Your task to perform on an android device: toggle notification dots Image 0: 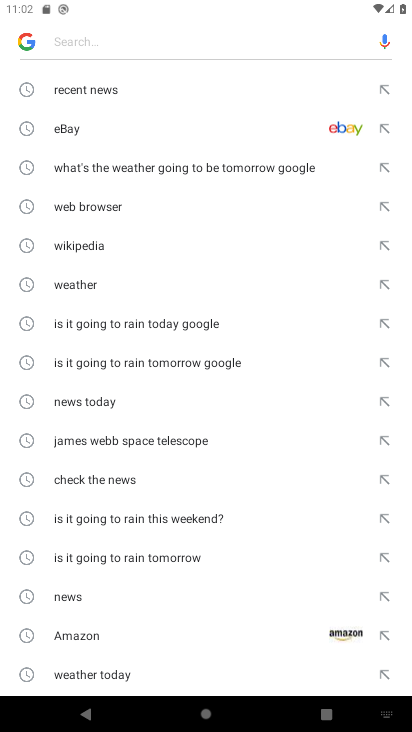
Step 0: press back button
Your task to perform on an android device: toggle notification dots Image 1: 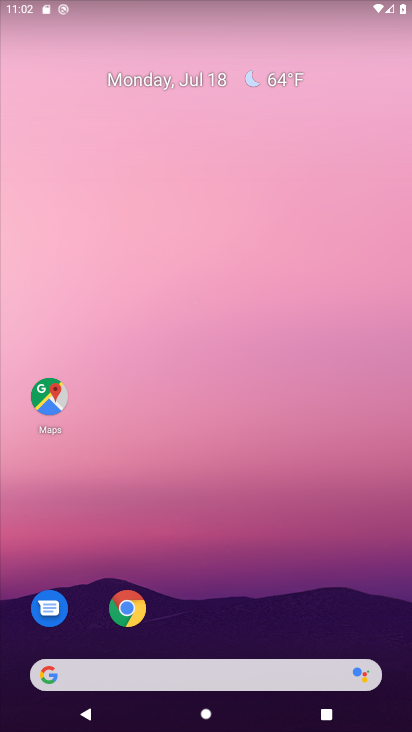
Step 1: drag from (93, 442) to (272, 112)
Your task to perform on an android device: toggle notification dots Image 2: 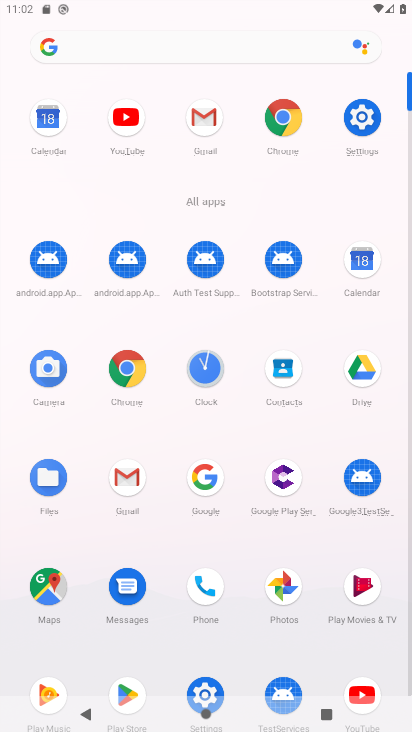
Step 2: click (375, 103)
Your task to perform on an android device: toggle notification dots Image 3: 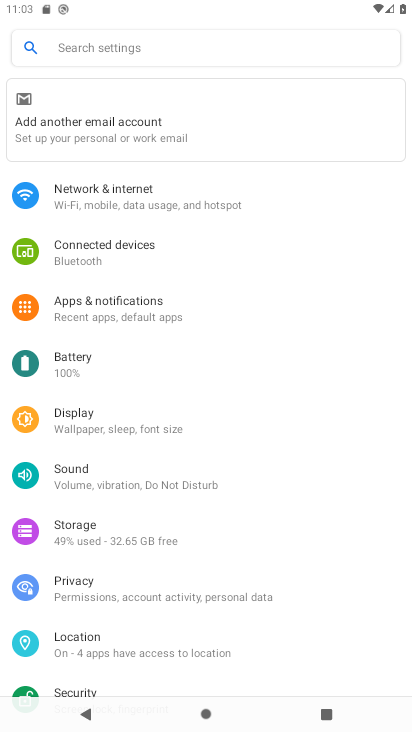
Step 3: click (103, 308)
Your task to perform on an android device: toggle notification dots Image 4: 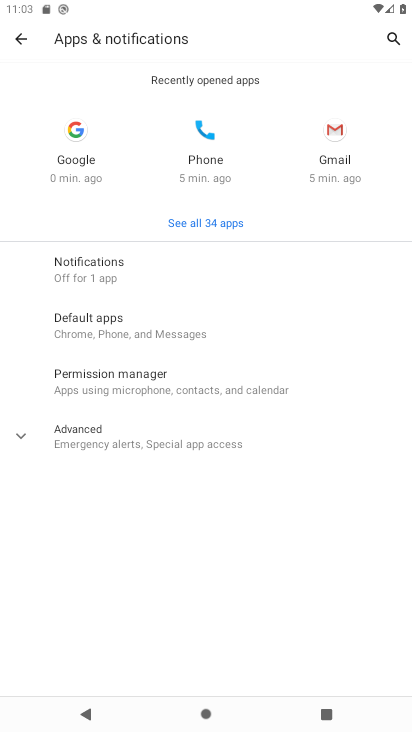
Step 4: click (71, 263)
Your task to perform on an android device: toggle notification dots Image 5: 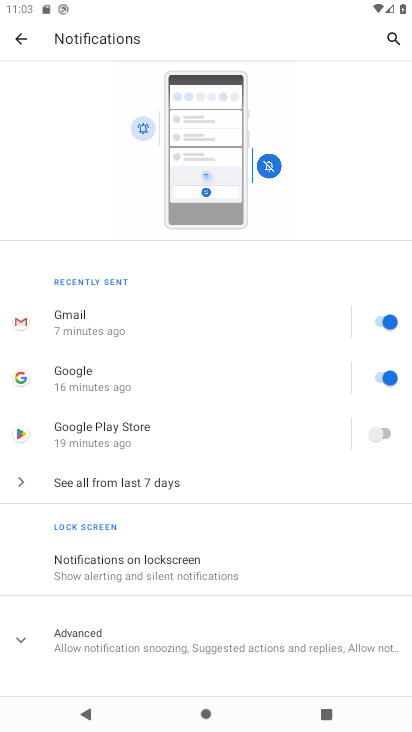
Step 5: click (91, 645)
Your task to perform on an android device: toggle notification dots Image 6: 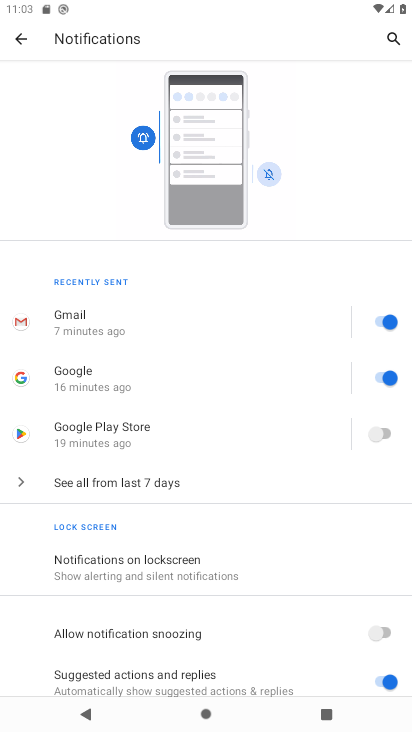
Step 6: drag from (22, 573) to (176, 216)
Your task to perform on an android device: toggle notification dots Image 7: 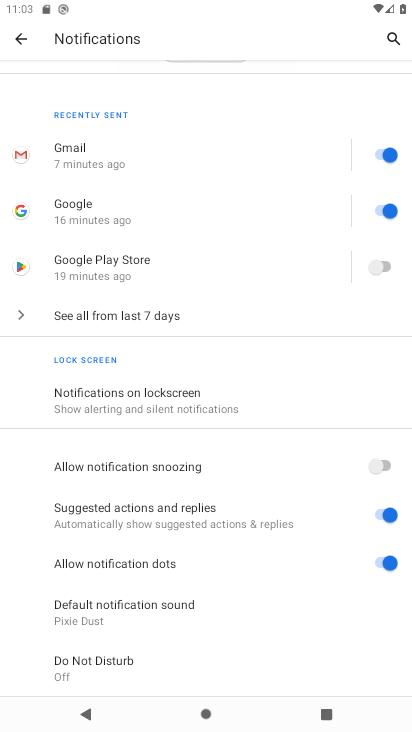
Step 7: click (384, 560)
Your task to perform on an android device: toggle notification dots Image 8: 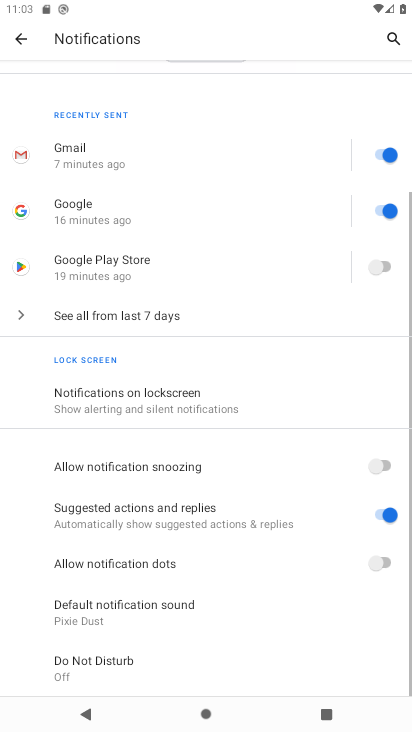
Step 8: task complete